Your task to perform on an android device: Open eBay Image 0: 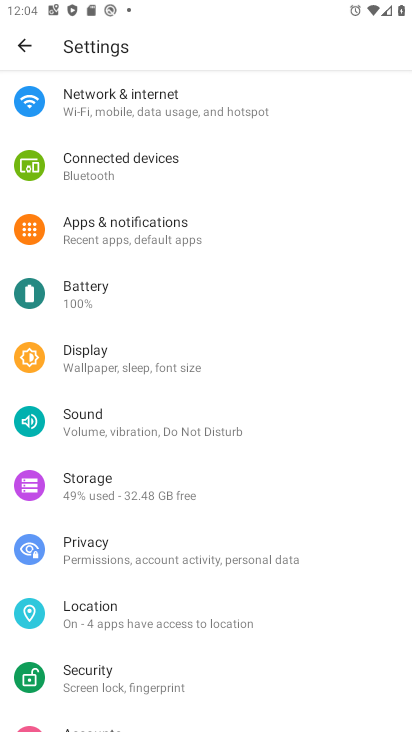
Step 0: press home button
Your task to perform on an android device: Open eBay Image 1: 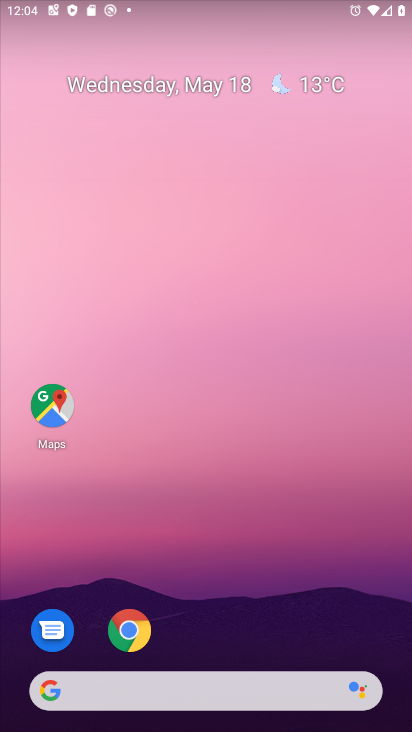
Step 1: click (126, 655)
Your task to perform on an android device: Open eBay Image 2: 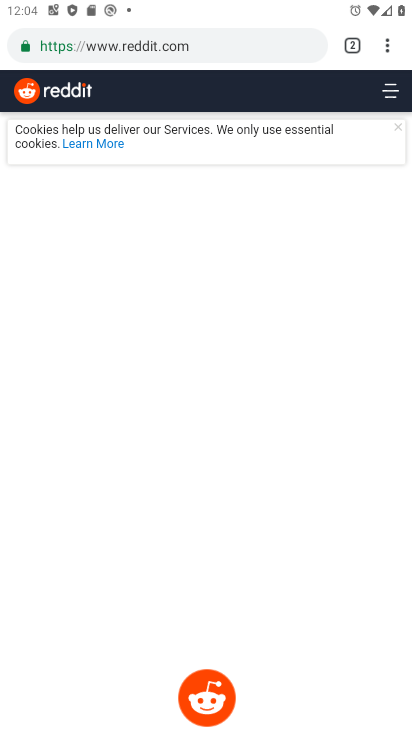
Step 2: click (387, 48)
Your task to perform on an android device: Open eBay Image 3: 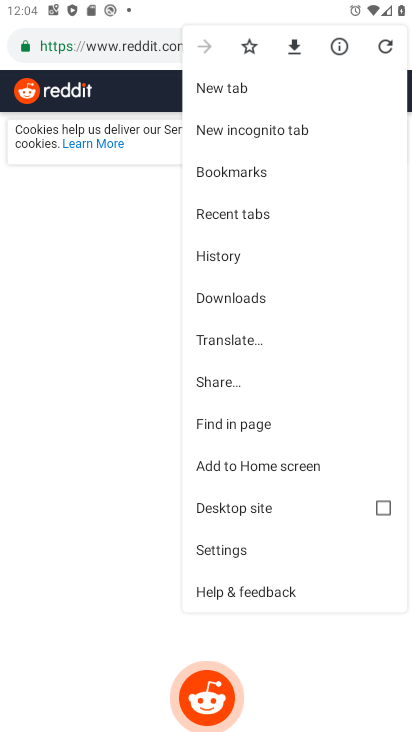
Step 3: click (227, 84)
Your task to perform on an android device: Open eBay Image 4: 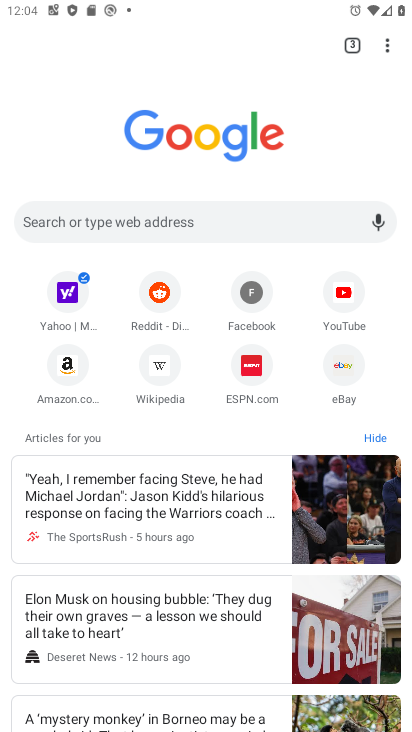
Step 4: click (338, 366)
Your task to perform on an android device: Open eBay Image 5: 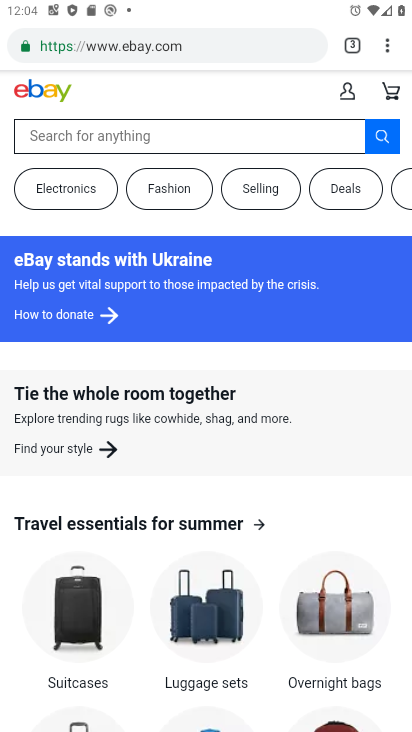
Step 5: task complete